Your task to perform on an android device: check android version Image 0: 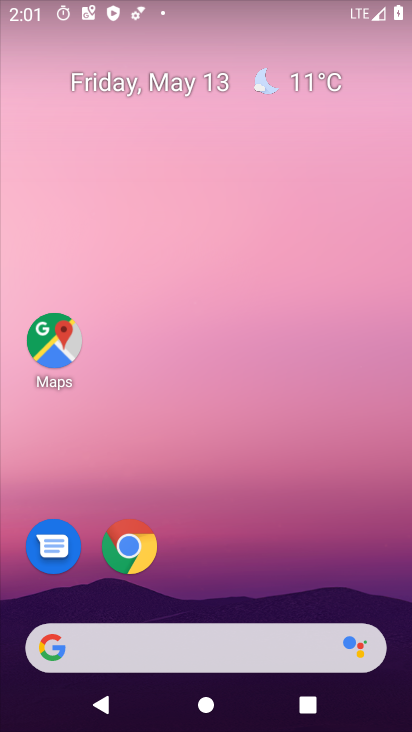
Step 0: drag from (236, 559) to (300, 49)
Your task to perform on an android device: check android version Image 1: 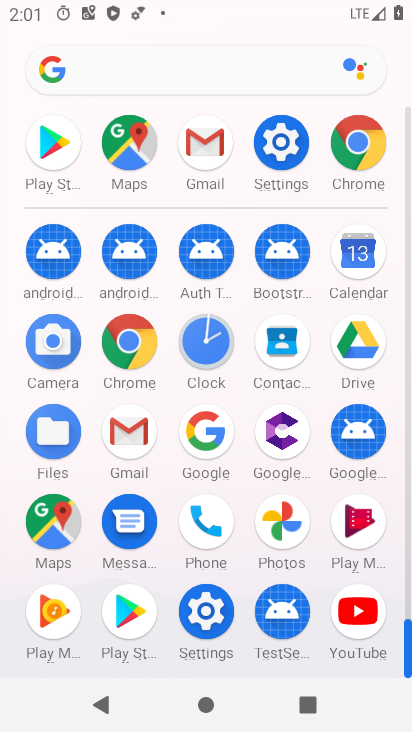
Step 1: click (271, 143)
Your task to perform on an android device: check android version Image 2: 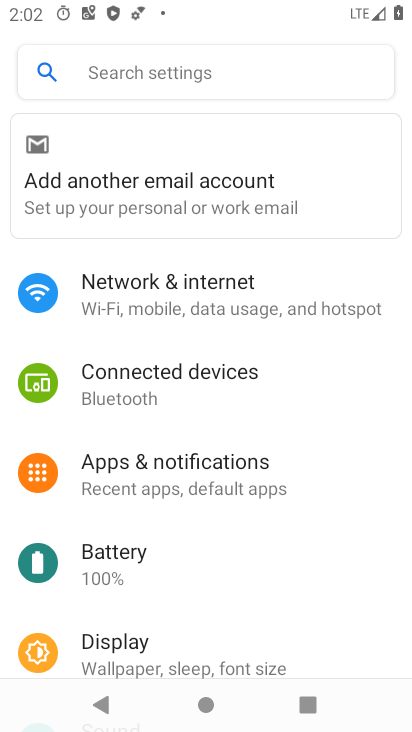
Step 2: drag from (234, 398) to (355, 26)
Your task to perform on an android device: check android version Image 3: 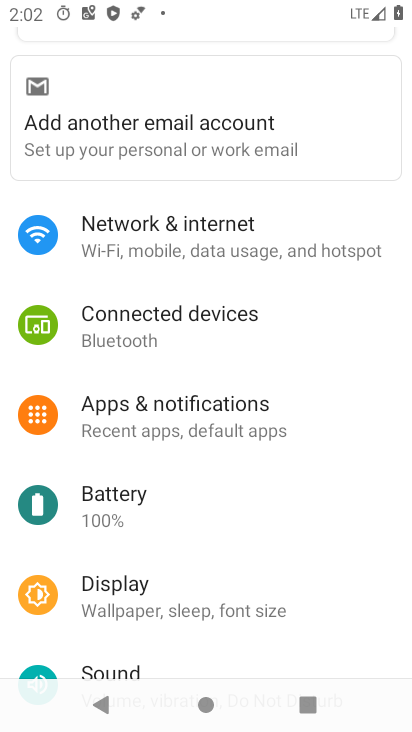
Step 3: drag from (234, 458) to (299, 22)
Your task to perform on an android device: check android version Image 4: 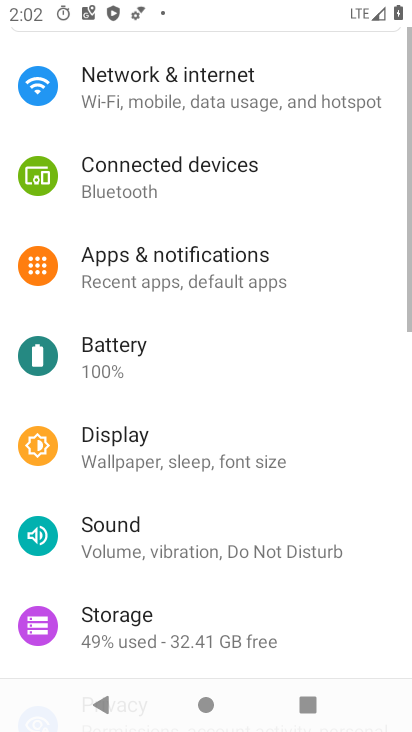
Step 4: drag from (222, 490) to (312, 4)
Your task to perform on an android device: check android version Image 5: 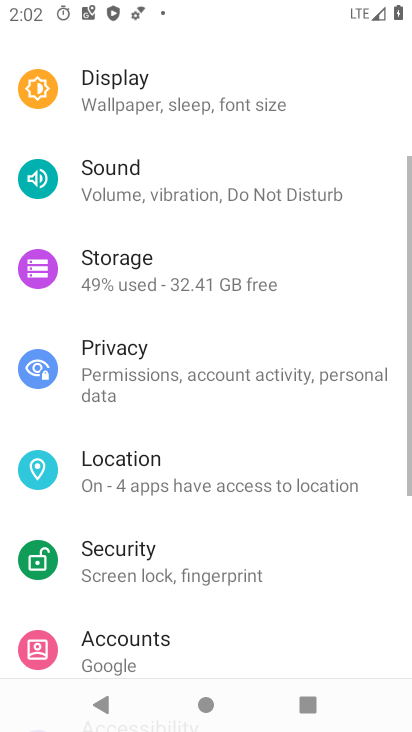
Step 5: drag from (181, 489) to (279, 35)
Your task to perform on an android device: check android version Image 6: 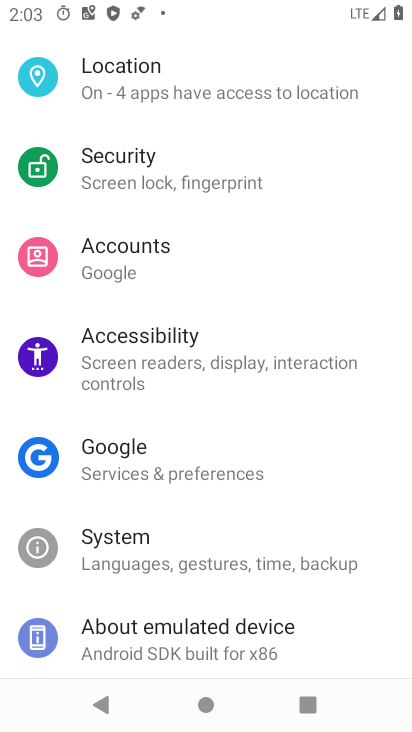
Step 6: click (209, 630)
Your task to perform on an android device: check android version Image 7: 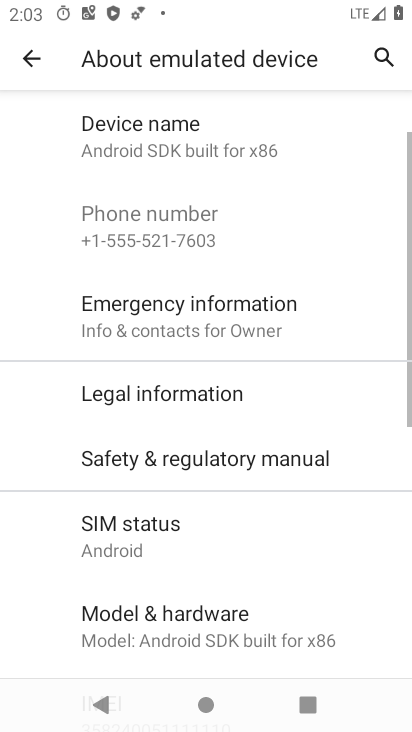
Step 7: drag from (221, 565) to (300, 109)
Your task to perform on an android device: check android version Image 8: 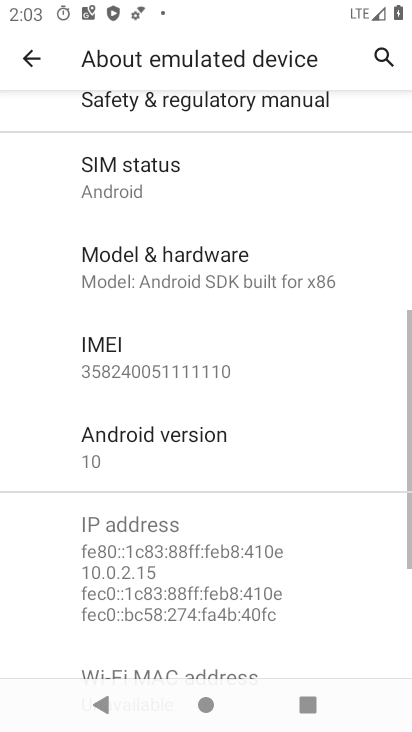
Step 8: click (201, 458)
Your task to perform on an android device: check android version Image 9: 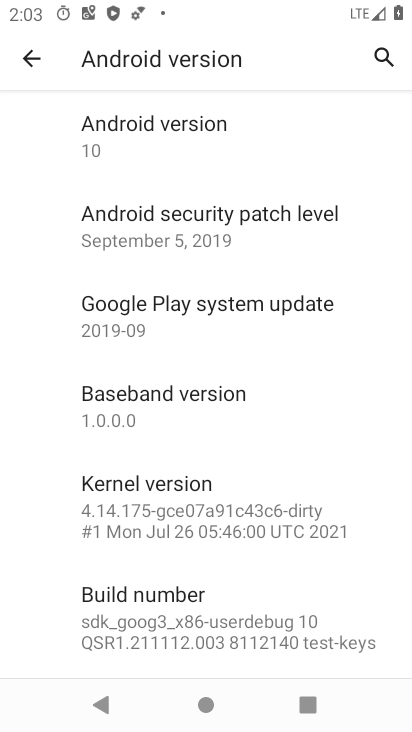
Step 9: task complete